Your task to perform on an android device: find which apps use the phone's location Image 0: 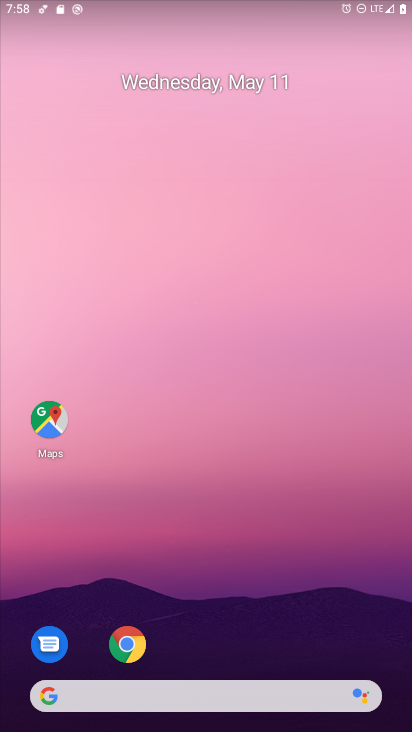
Step 0: drag from (218, 566) to (84, 33)
Your task to perform on an android device: find which apps use the phone's location Image 1: 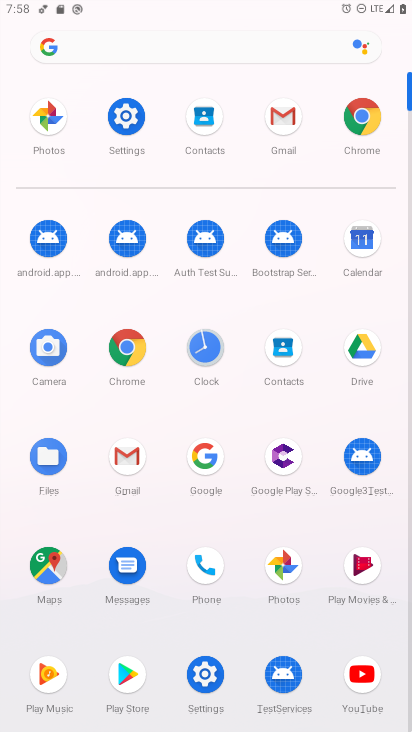
Step 1: click (209, 674)
Your task to perform on an android device: find which apps use the phone's location Image 2: 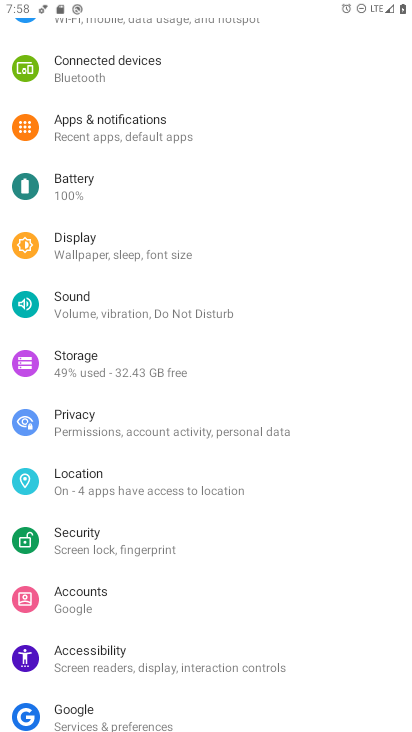
Step 2: click (78, 470)
Your task to perform on an android device: find which apps use the phone's location Image 3: 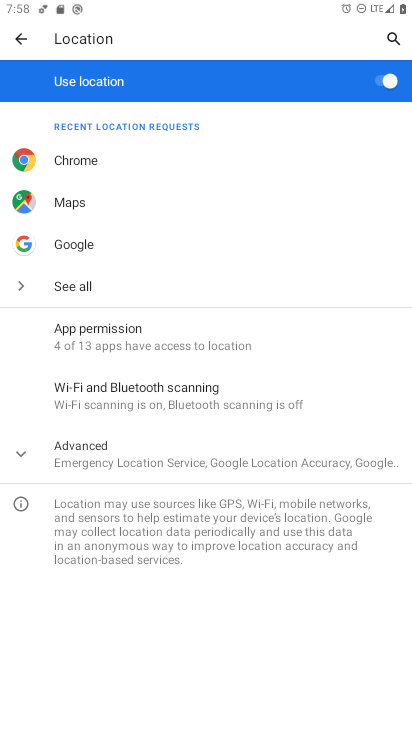
Step 3: click (71, 280)
Your task to perform on an android device: find which apps use the phone's location Image 4: 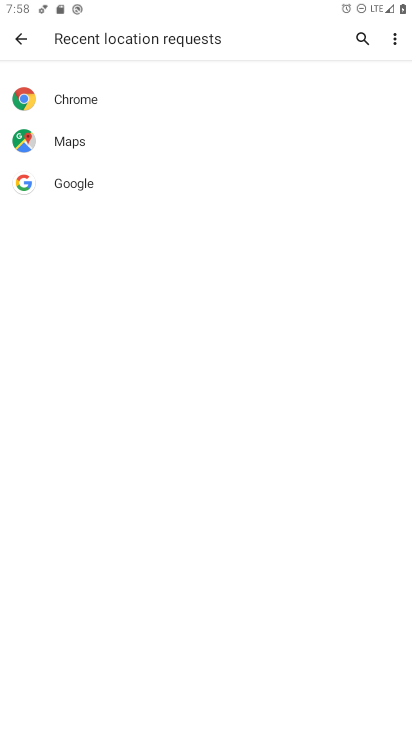
Step 4: task complete